Your task to perform on an android device: Open Reddit.com Image 0: 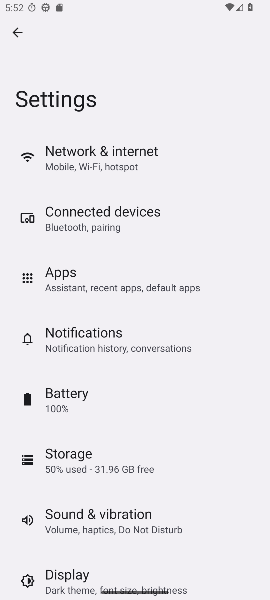
Step 0: press home button
Your task to perform on an android device: Open Reddit.com Image 1: 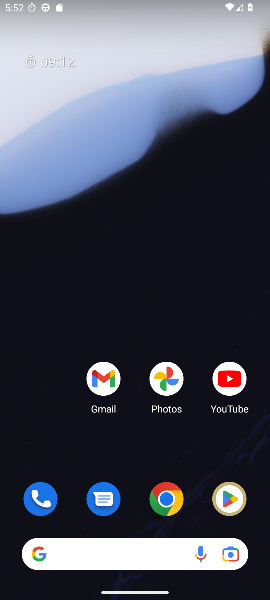
Step 1: drag from (112, 521) to (49, 62)
Your task to perform on an android device: Open Reddit.com Image 2: 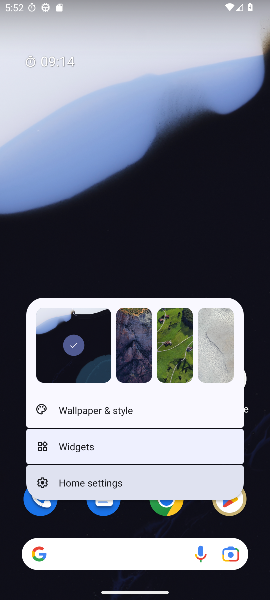
Step 2: click (139, 182)
Your task to perform on an android device: Open Reddit.com Image 3: 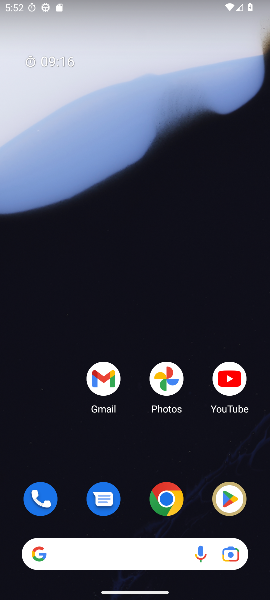
Step 3: drag from (167, 501) to (161, 33)
Your task to perform on an android device: Open Reddit.com Image 4: 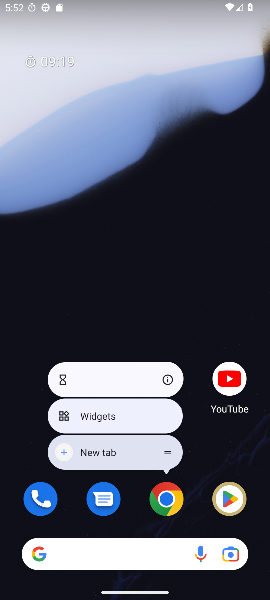
Step 4: drag from (130, 579) to (101, 20)
Your task to perform on an android device: Open Reddit.com Image 5: 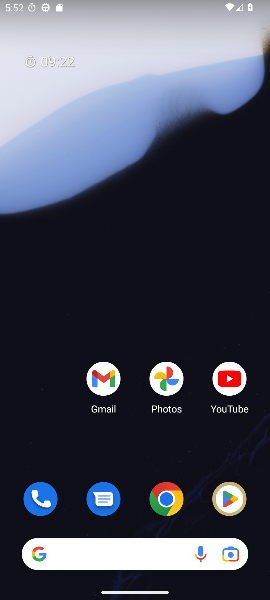
Step 5: drag from (44, 542) to (41, 27)
Your task to perform on an android device: Open Reddit.com Image 6: 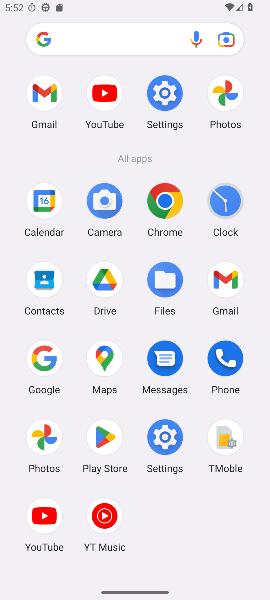
Step 6: click (156, 193)
Your task to perform on an android device: Open Reddit.com Image 7: 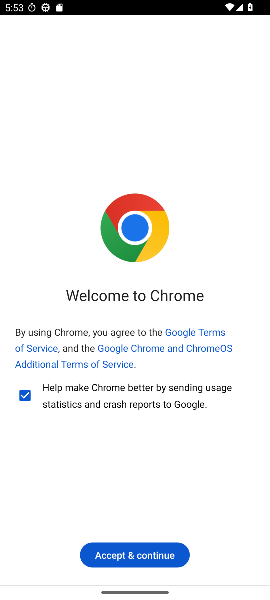
Step 7: click (158, 563)
Your task to perform on an android device: Open Reddit.com Image 8: 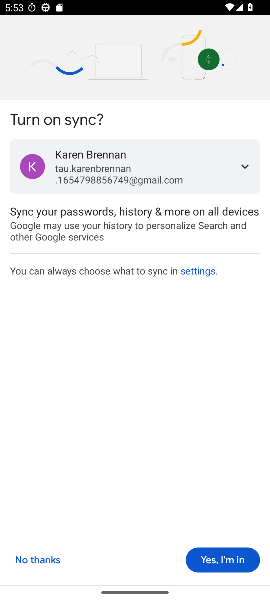
Step 8: click (36, 553)
Your task to perform on an android device: Open Reddit.com Image 9: 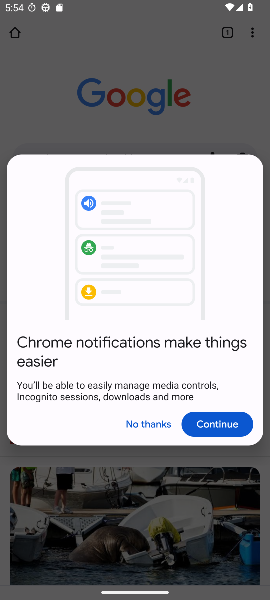
Step 9: click (138, 428)
Your task to perform on an android device: Open Reddit.com Image 10: 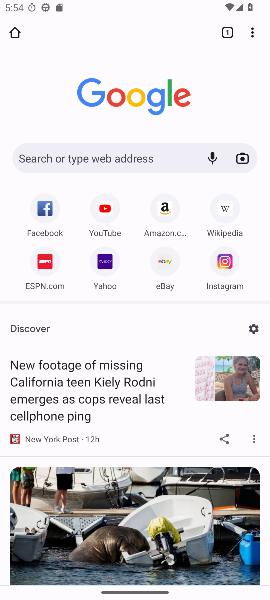
Step 10: click (75, 159)
Your task to perform on an android device: Open Reddit.com Image 11: 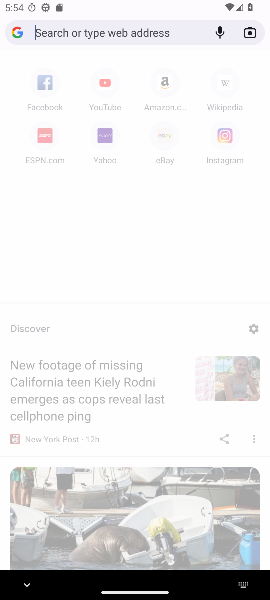
Step 11: type "Reddit.com"
Your task to perform on an android device: Open Reddit.com Image 12: 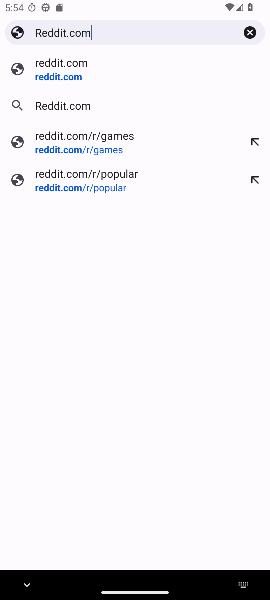
Step 12: click (44, 69)
Your task to perform on an android device: Open Reddit.com Image 13: 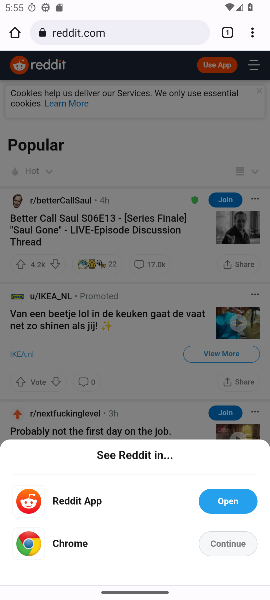
Step 13: click (229, 502)
Your task to perform on an android device: Open Reddit.com Image 14: 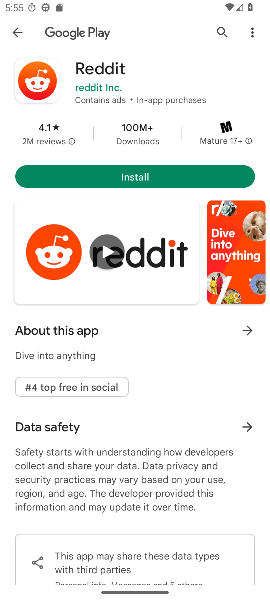
Step 14: click (13, 33)
Your task to perform on an android device: Open Reddit.com Image 15: 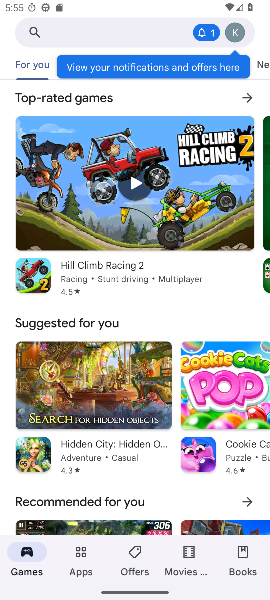
Step 15: task complete